Your task to perform on an android device: change the clock style Image 0: 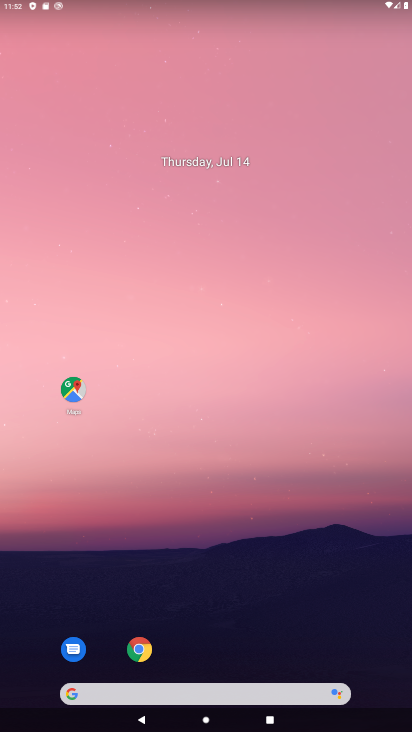
Step 0: drag from (235, 684) to (236, 206)
Your task to perform on an android device: change the clock style Image 1: 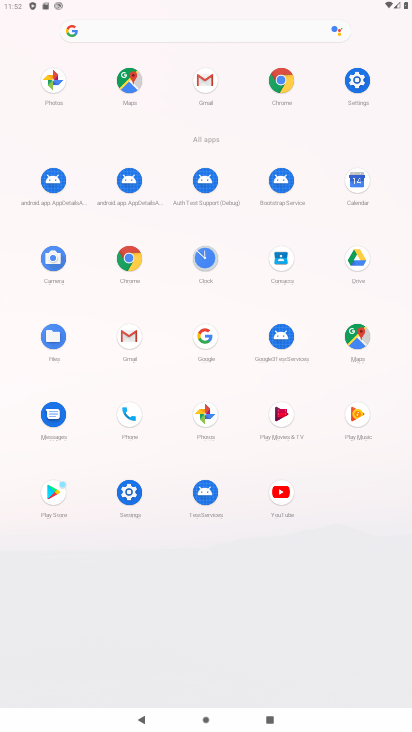
Step 1: click (204, 262)
Your task to perform on an android device: change the clock style Image 2: 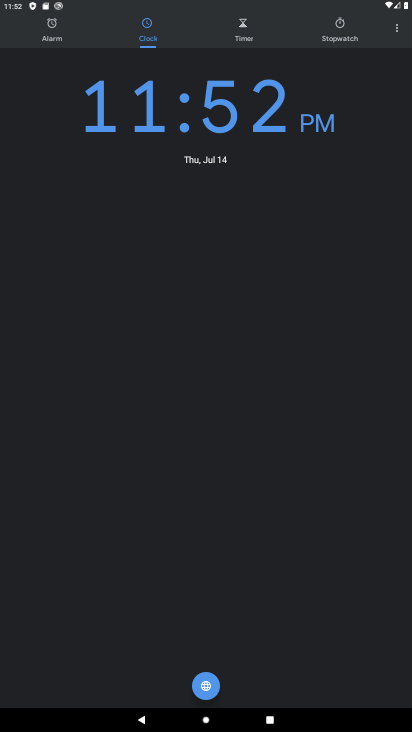
Step 2: click (401, 26)
Your task to perform on an android device: change the clock style Image 3: 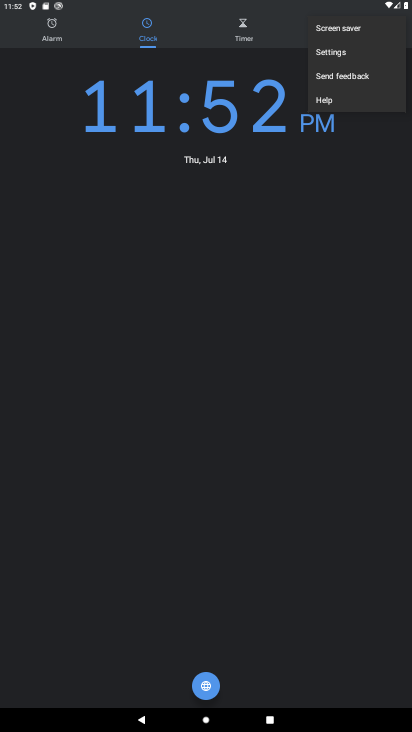
Step 3: click (342, 59)
Your task to perform on an android device: change the clock style Image 4: 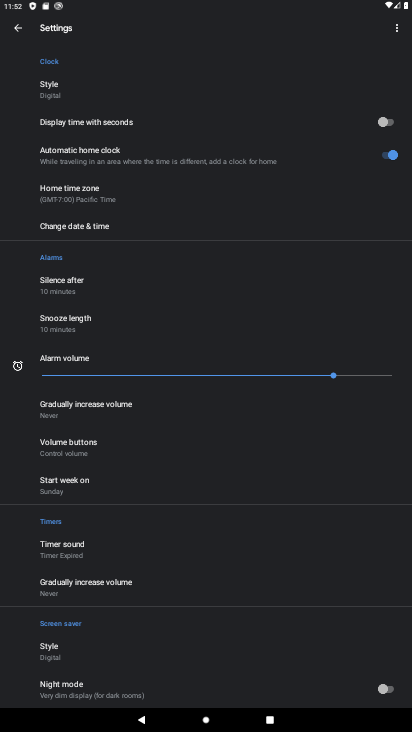
Step 4: drag from (124, 561) to (191, 206)
Your task to perform on an android device: change the clock style Image 5: 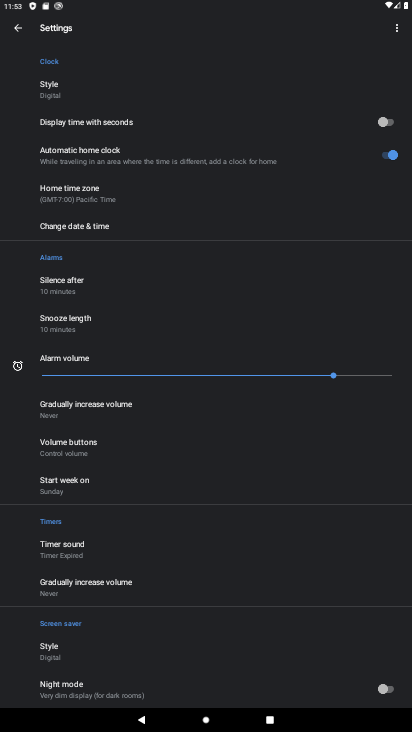
Step 5: click (50, 82)
Your task to perform on an android device: change the clock style Image 6: 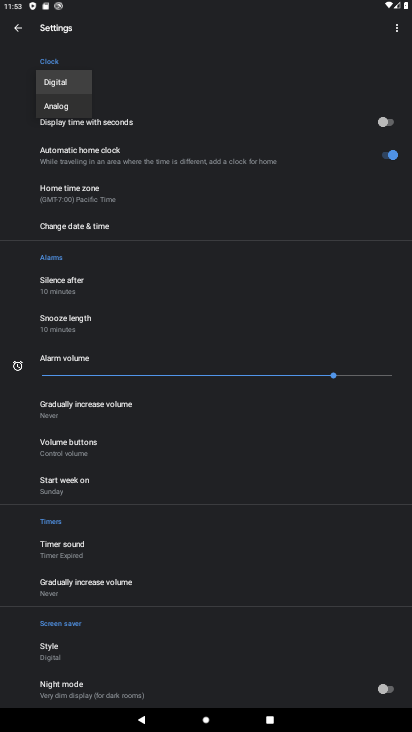
Step 6: click (79, 103)
Your task to perform on an android device: change the clock style Image 7: 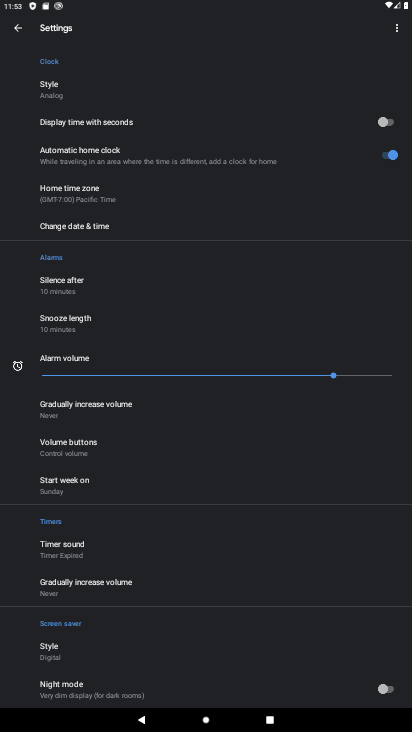
Step 7: task complete